Your task to perform on an android device: Open the web browser Image 0: 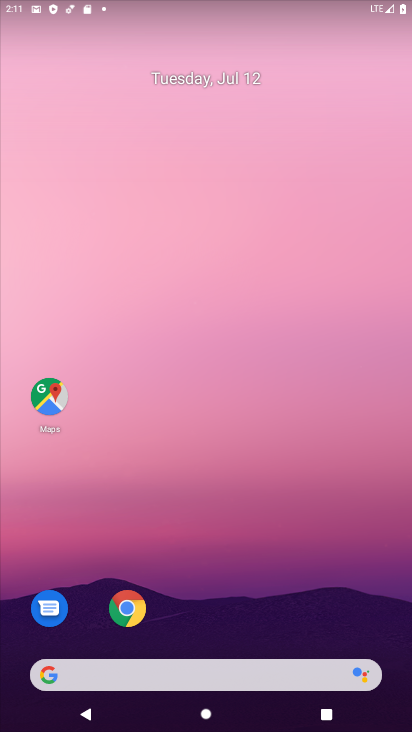
Step 0: drag from (227, 31) to (189, 125)
Your task to perform on an android device: Open the web browser Image 1: 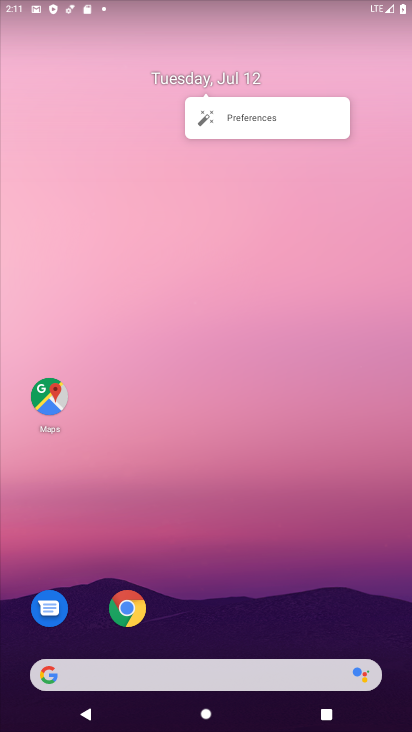
Step 1: click (121, 605)
Your task to perform on an android device: Open the web browser Image 2: 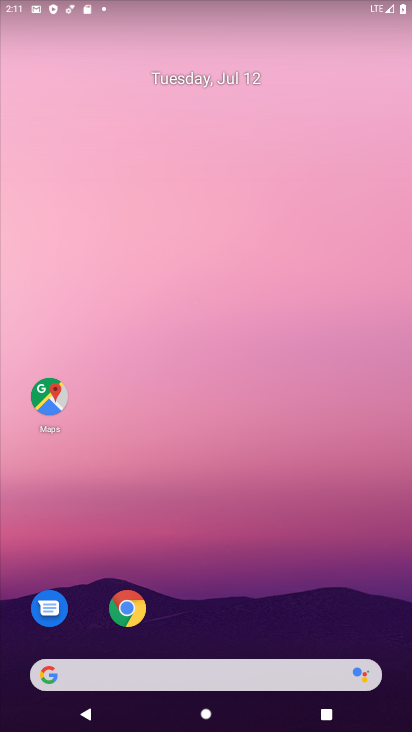
Step 2: click (137, 607)
Your task to perform on an android device: Open the web browser Image 3: 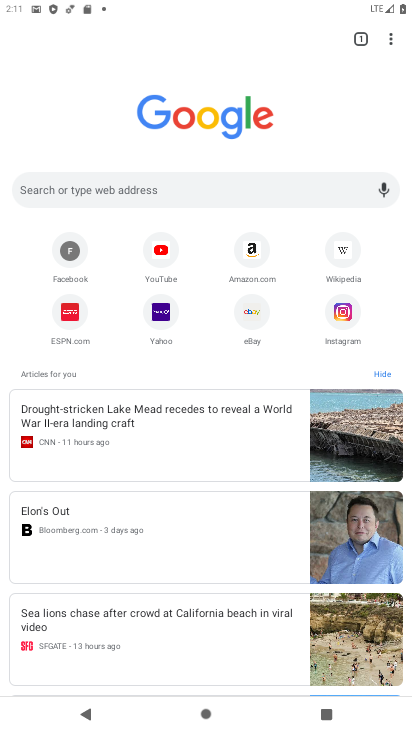
Step 3: task complete